Your task to perform on an android device: turn off location history Image 0: 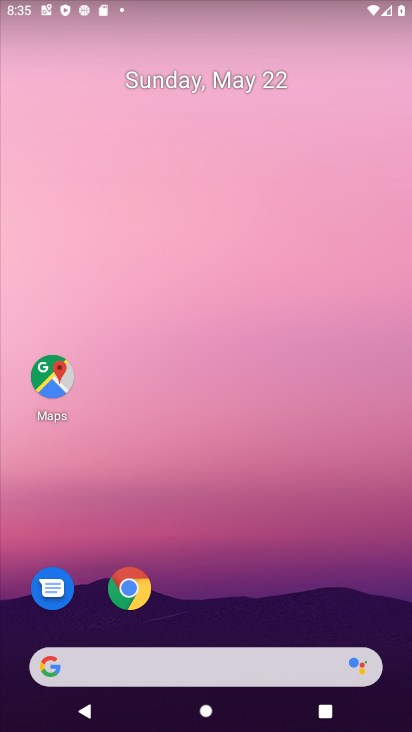
Step 0: click (54, 375)
Your task to perform on an android device: turn off location history Image 1: 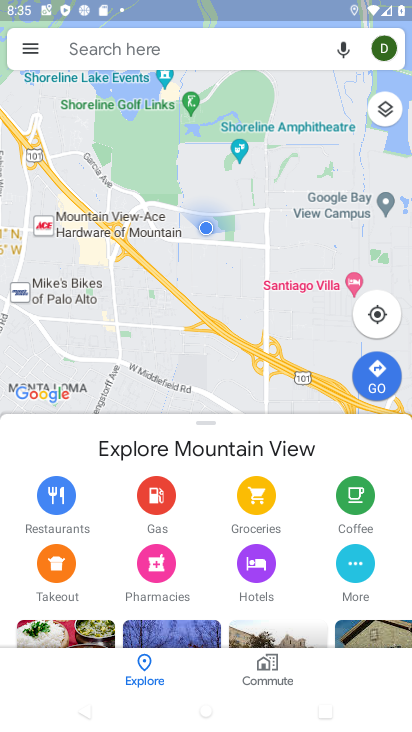
Step 1: click (28, 47)
Your task to perform on an android device: turn off location history Image 2: 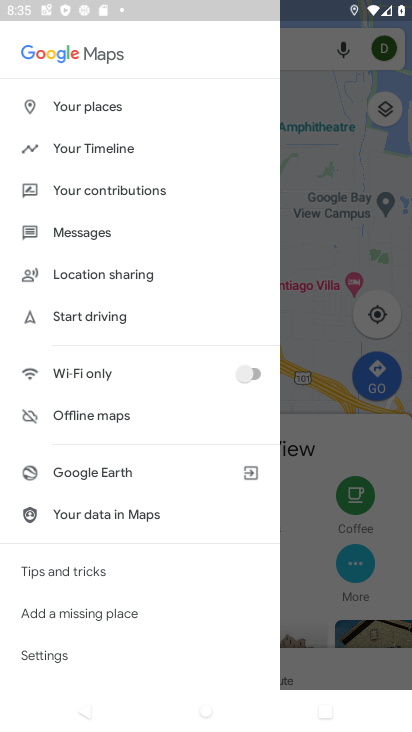
Step 2: click (120, 151)
Your task to perform on an android device: turn off location history Image 3: 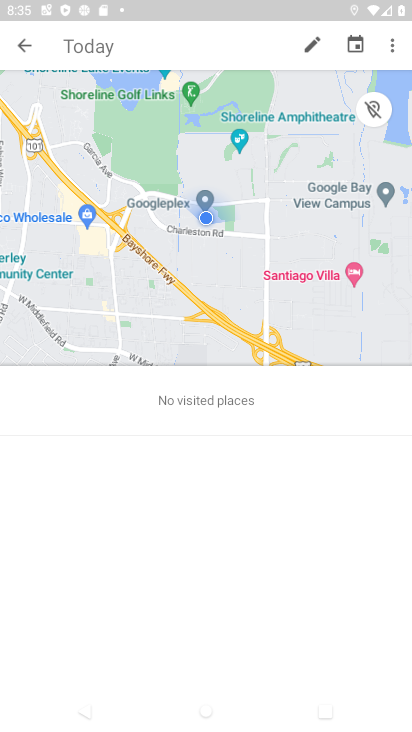
Step 3: click (394, 46)
Your task to perform on an android device: turn off location history Image 4: 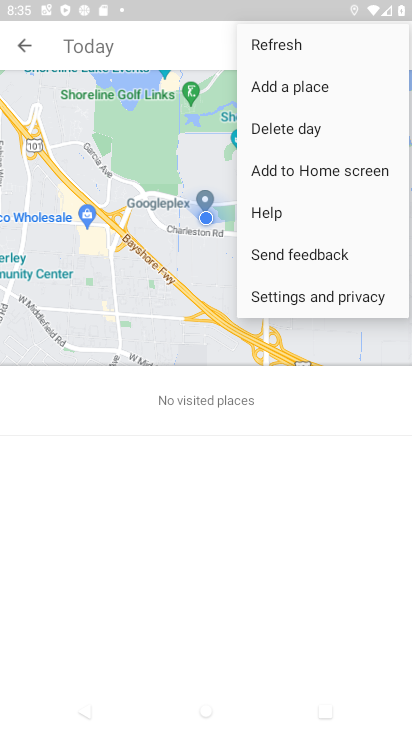
Step 4: click (332, 291)
Your task to perform on an android device: turn off location history Image 5: 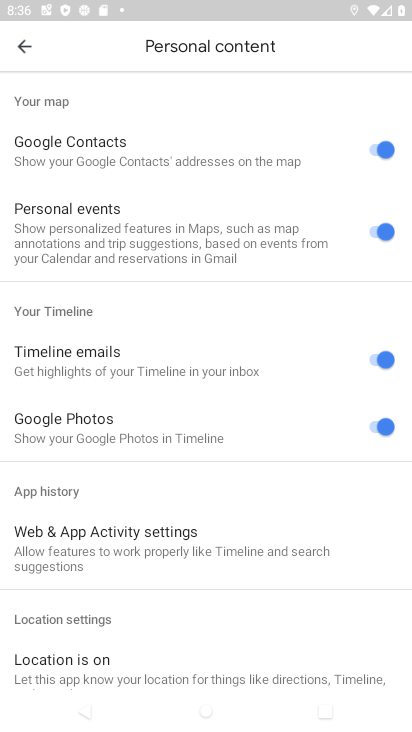
Step 5: drag from (286, 515) to (314, 5)
Your task to perform on an android device: turn off location history Image 6: 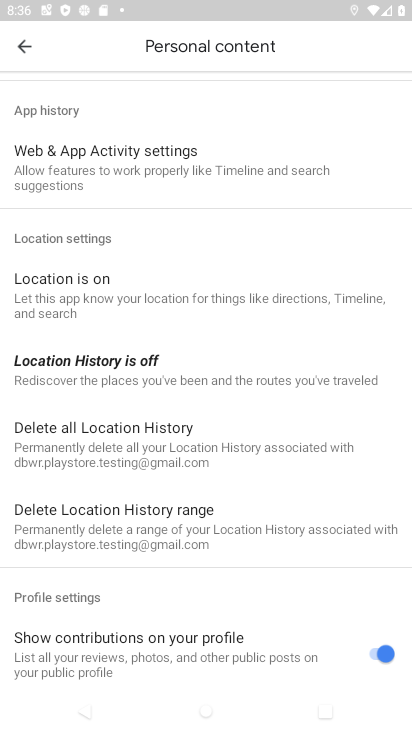
Step 6: click (101, 358)
Your task to perform on an android device: turn off location history Image 7: 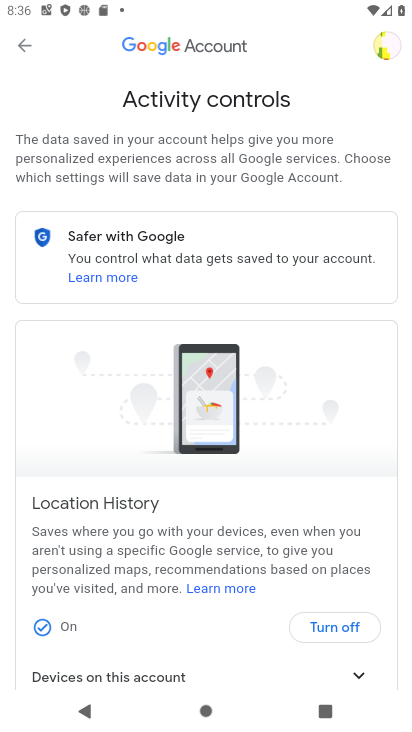
Step 7: click (344, 627)
Your task to perform on an android device: turn off location history Image 8: 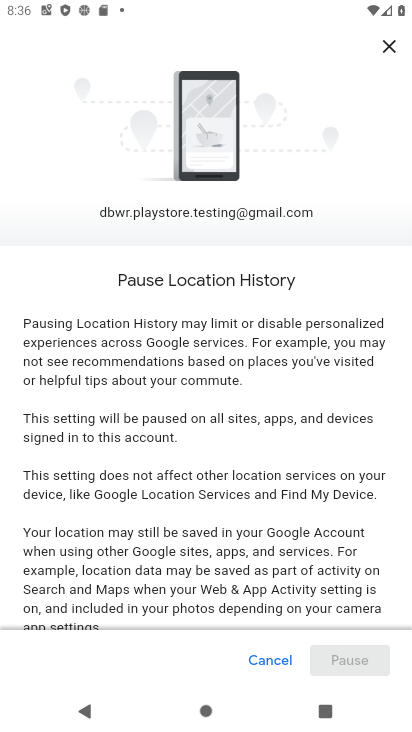
Step 8: drag from (305, 540) to (305, 184)
Your task to perform on an android device: turn off location history Image 9: 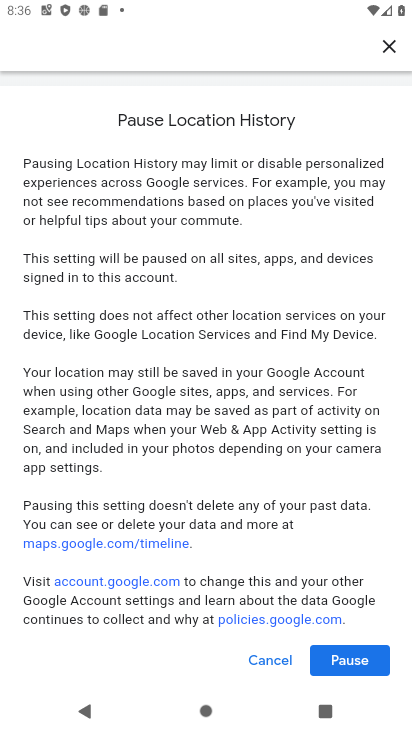
Step 9: click (353, 664)
Your task to perform on an android device: turn off location history Image 10: 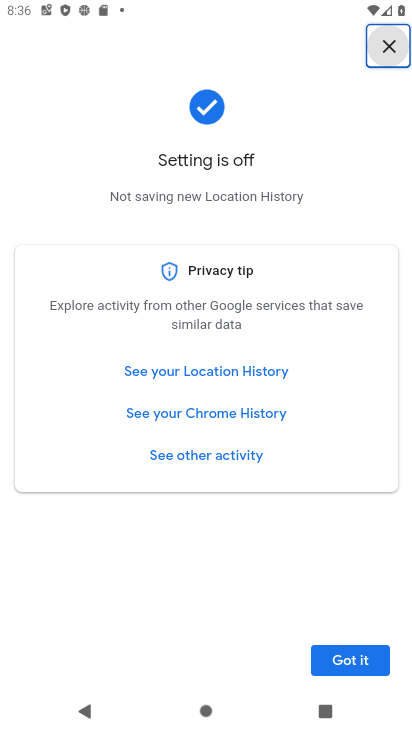
Step 10: click (342, 661)
Your task to perform on an android device: turn off location history Image 11: 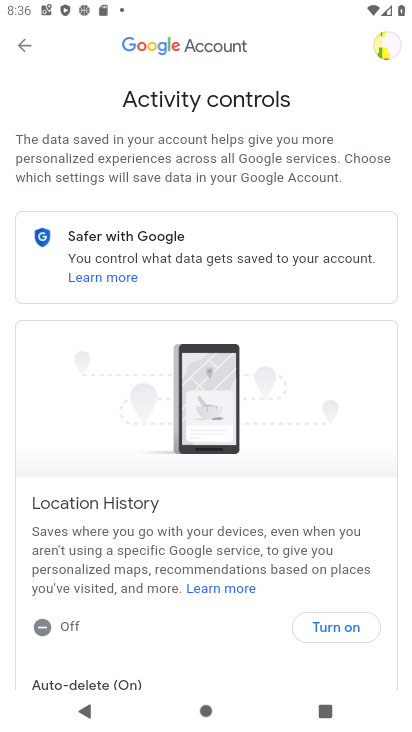
Step 11: task complete